Your task to perform on an android device: turn off wifi Image 0: 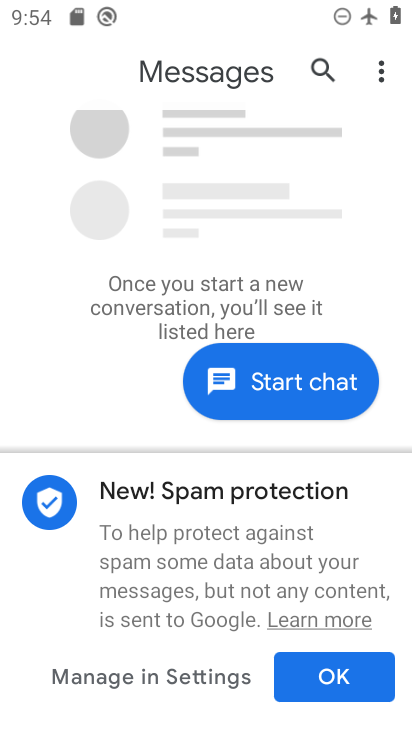
Step 0: press home button
Your task to perform on an android device: turn off wifi Image 1: 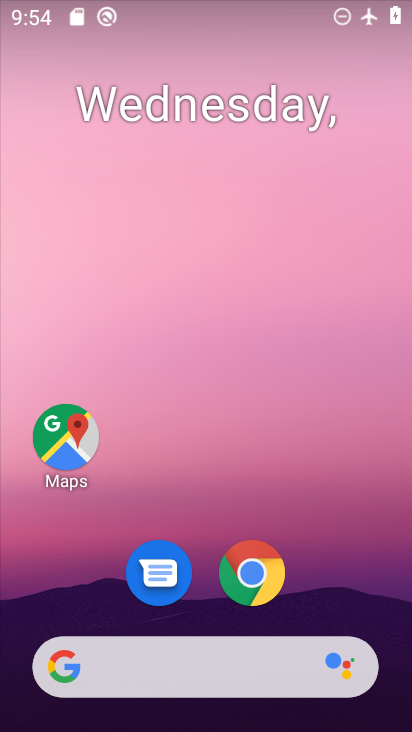
Step 1: drag from (384, 250) to (385, 178)
Your task to perform on an android device: turn off wifi Image 2: 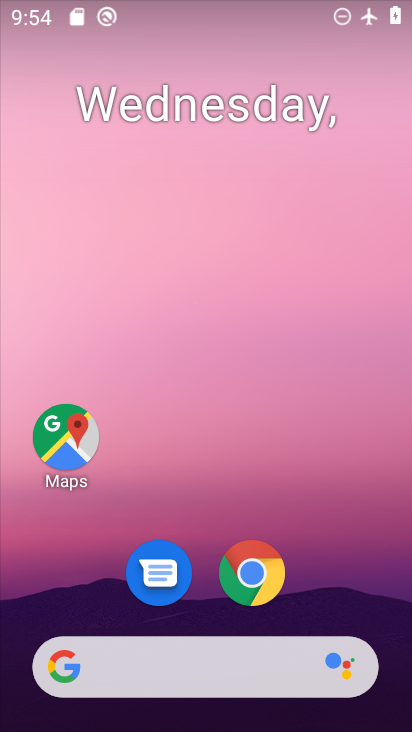
Step 2: click (361, 220)
Your task to perform on an android device: turn off wifi Image 3: 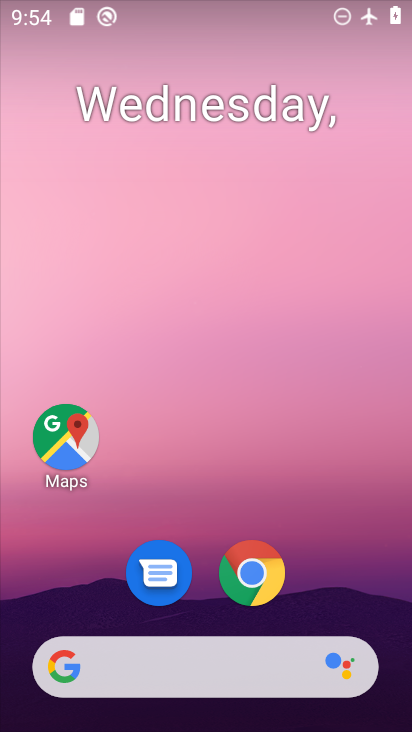
Step 3: drag from (370, 307) to (386, 129)
Your task to perform on an android device: turn off wifi Image 4: 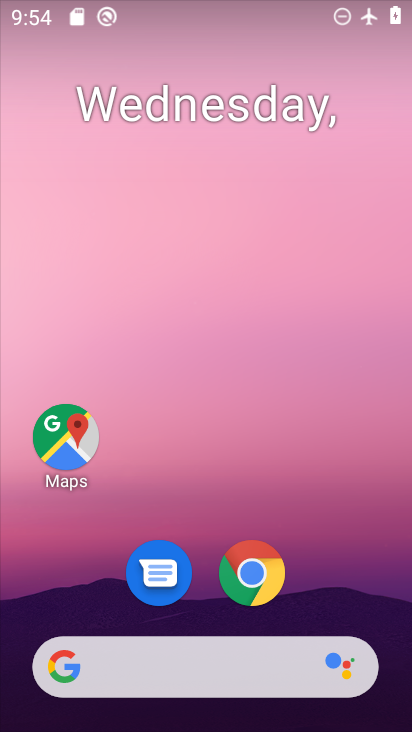
Step 4: drag from (373, 524) to (389, 122)
Your task to perform on an android device: turn off wifi Image 5: 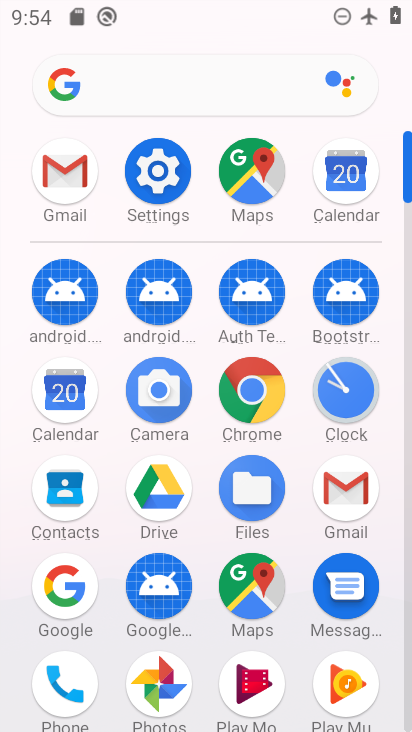
Step 5: click (153, 173)
Your task to perform on an android device: turn off wifi Image 6: 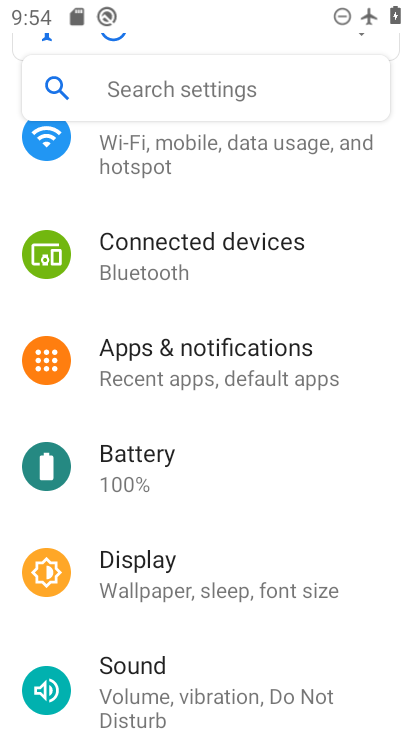
Step 6: click (135, 148)
Your task to perform on an android device: turn off wifi Image 7: 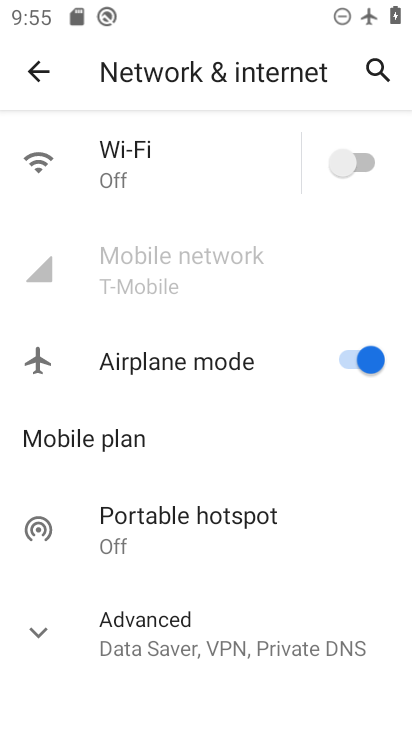
Step 7: task complete